Your task to perform on an android device: read, delete, or share a saved page in the chrome app Image 0: 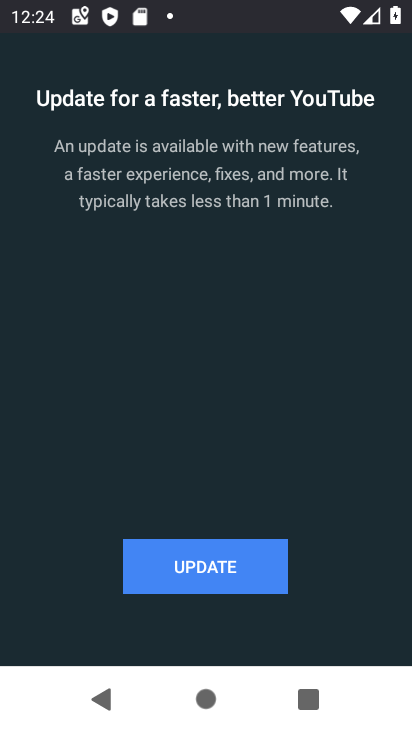
Step 0: press home button
Your task to perform on an android device: read, delete, or share a saved page in the chrome app Image 1: 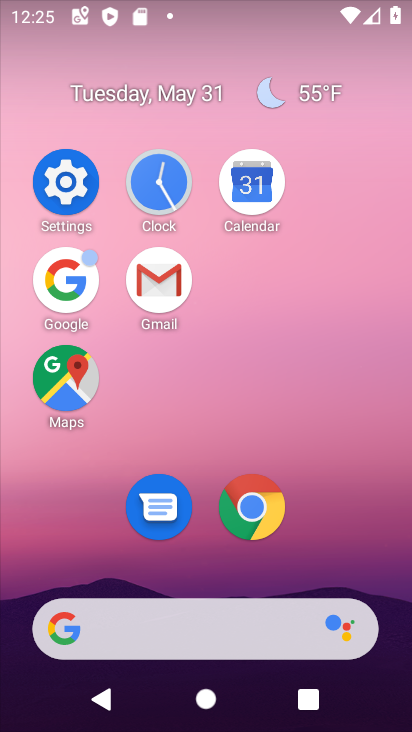
Step 1: click (270, 494)
Your task to perform on an android device: read, delete, or share a saved page in the chrome app Image 2: 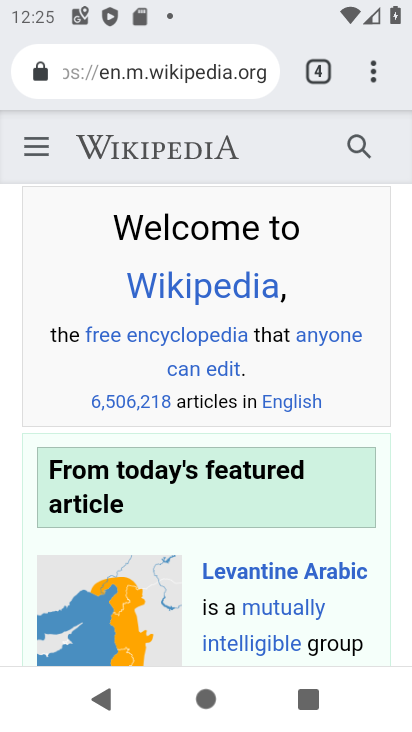
Step 2: click (385, 72)
Your task to perform on an android device: read, delete, or share a saved page in the chrome app Image 3: 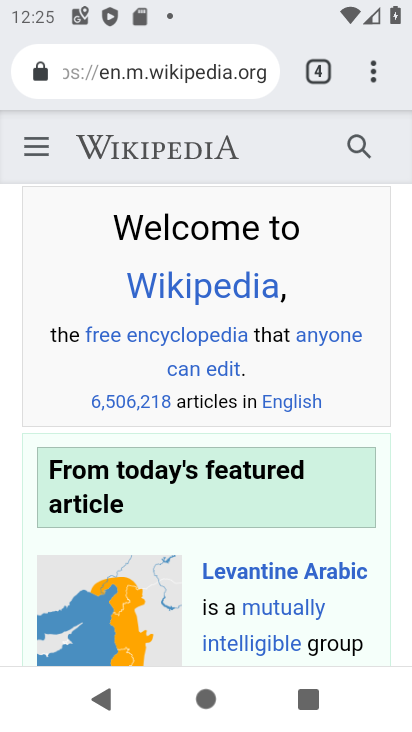
Step 3: click (369, 82)
Your task to perform on an android device: read, delete, or share a saved page in the chrome app Image 4: 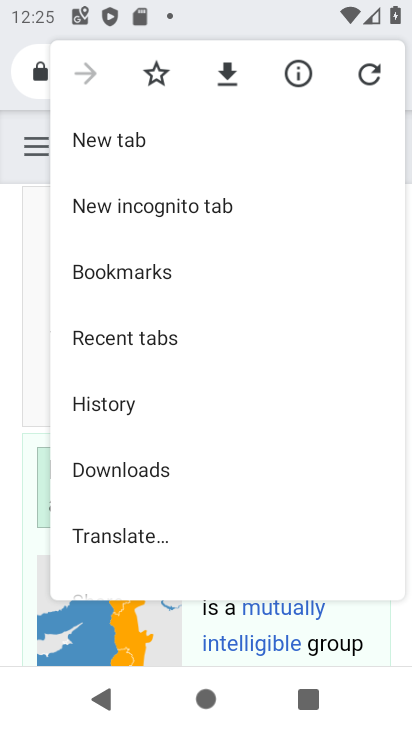
Step 4: click (159, 474)
Your task to perform on an android device: read, delete, or share a saved page in the chrome app Image 5: 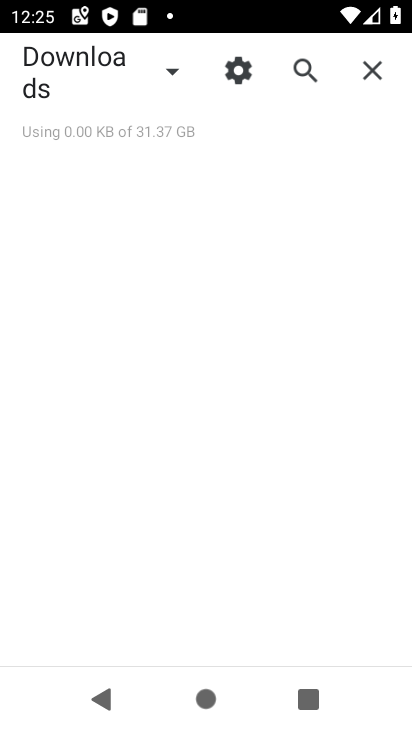
Step 5: task complete